Your task to perform on an android device: set default search engine in the chrome app Image 0: 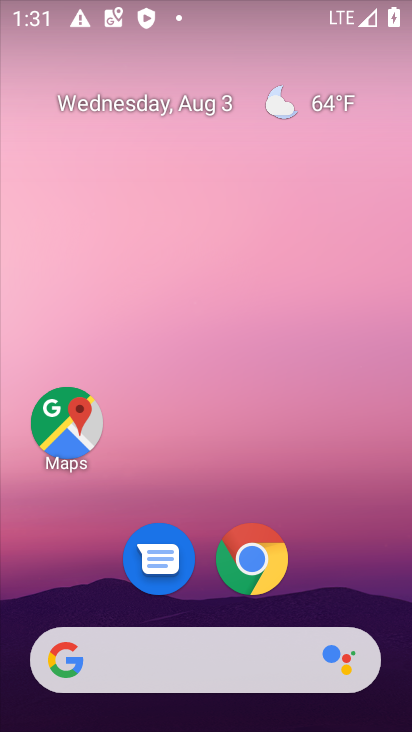
Step 0: click (250, 560)
Your task to perform on an android device: set default search engine in the chrome app Image 1: 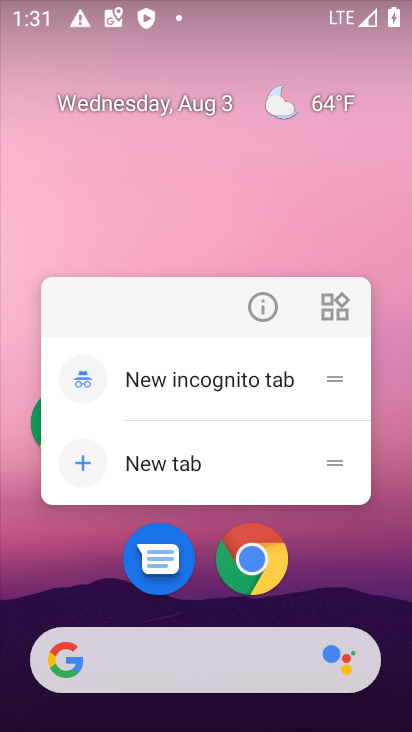
Step 1: click (250, 566)
Your task to perform on an android device: set default search engine in the chrome app Image 2: 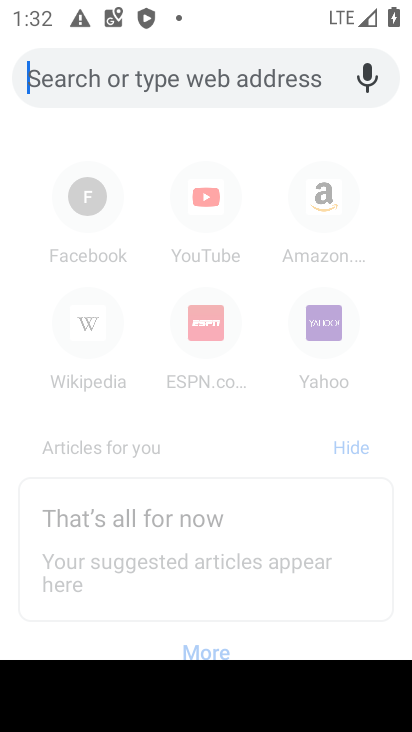
Step 2: click (239, 409)
Your task to perform on an android device: set default search engine in the chrome app Image 3: 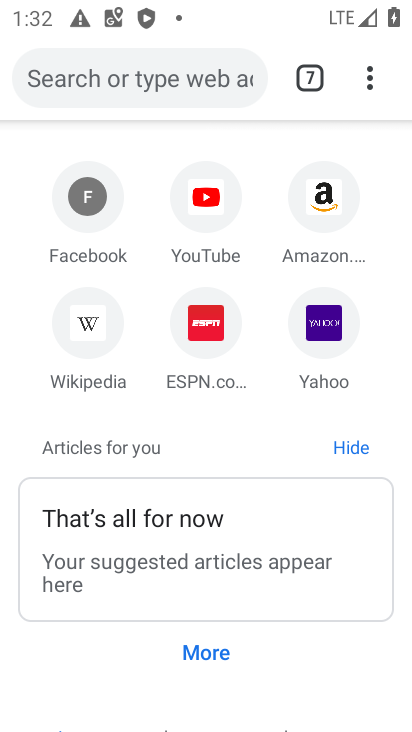
Step 3: click (370, 90)
Your task to perform on an android device: set default search engine in the chrome app Image 4: 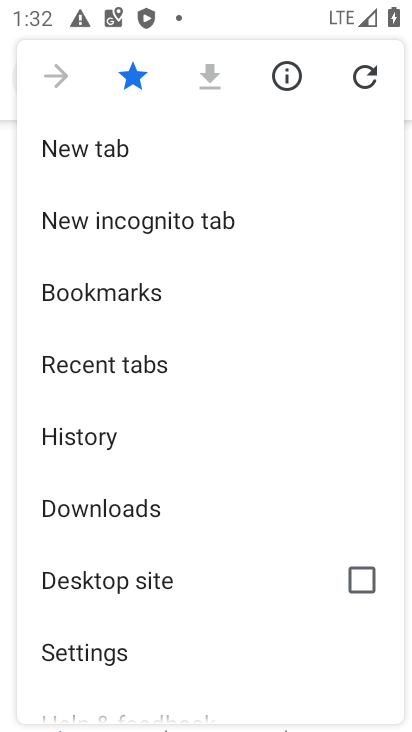
Step 4: click (96, 649)
Your task to perform on an android device: set default search engine in the chrome app Image 5: 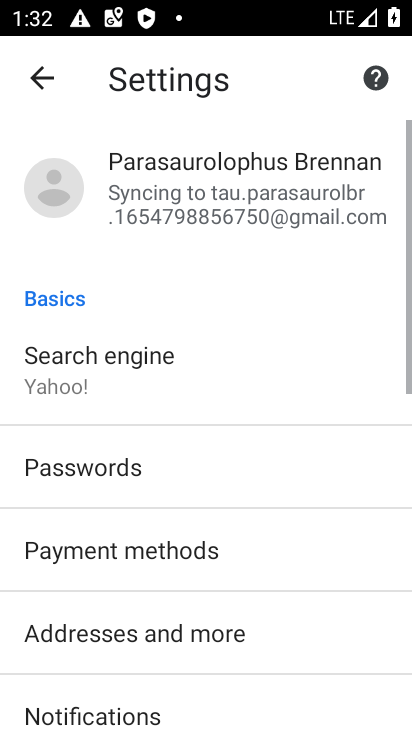
Step 5: drag from (125, 630) to (156, 245)
Your task to perform on an android device: set default search engine in the chrome app Image 6: 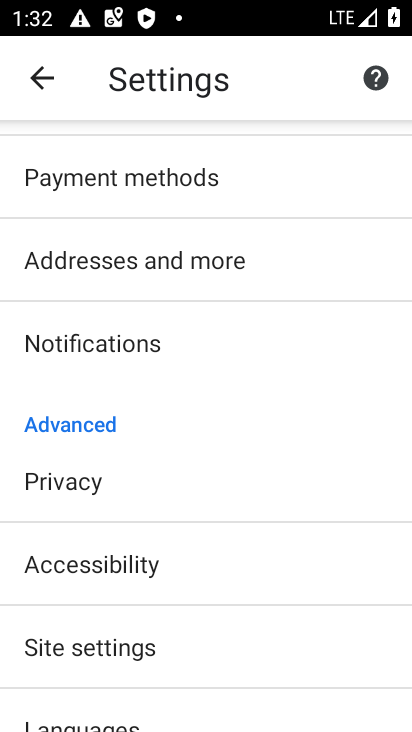
Step 6: drag from (151, 681) to (178, 317)
Your task to perform on an android device: set default search engine in the chrome app Image 7: 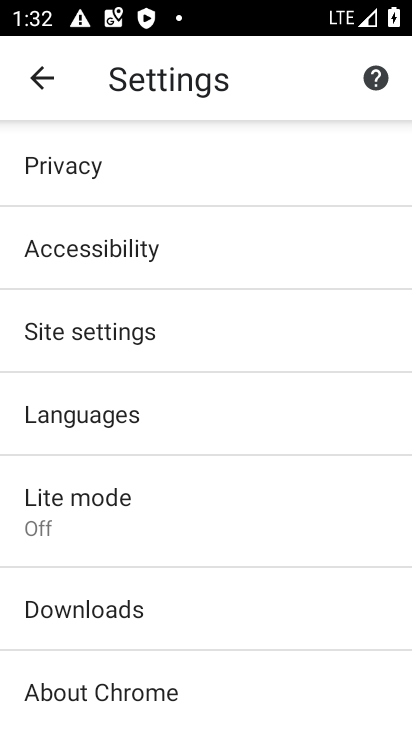
Step 7: drag from (125, 640) to (145, 343)
Your task to perform on an android device: set default search engine in the chrome app Image 8: 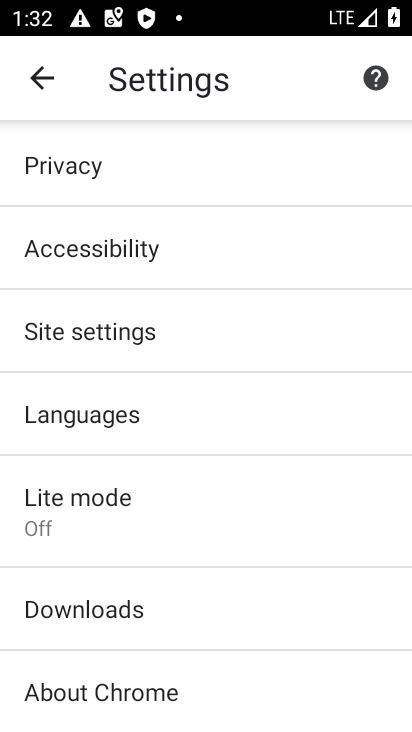
Step 8: drag from (171, 199) to (147, 541)
Your task to perform on an android device: set default search engine in the chrome app Image 9: 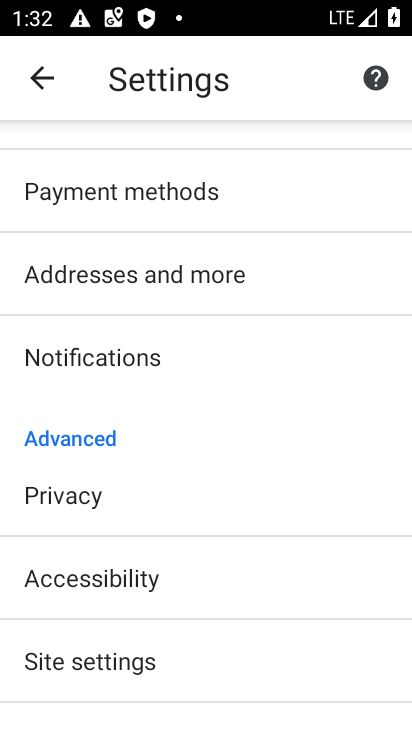
Step 9: drag from (136, 169) to (114, 527)
Your task to perform on an android device: set default search engine in the chrome app Image 10: 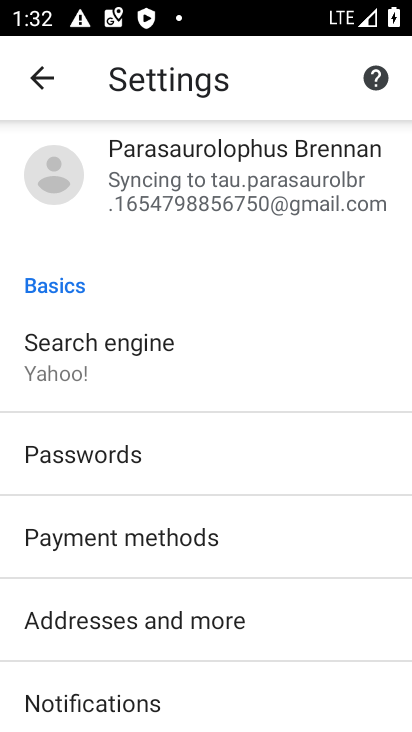
Step 10: click (87, 359)
Your task to perform on an android device: set default search engine in the chrome app Image 11: 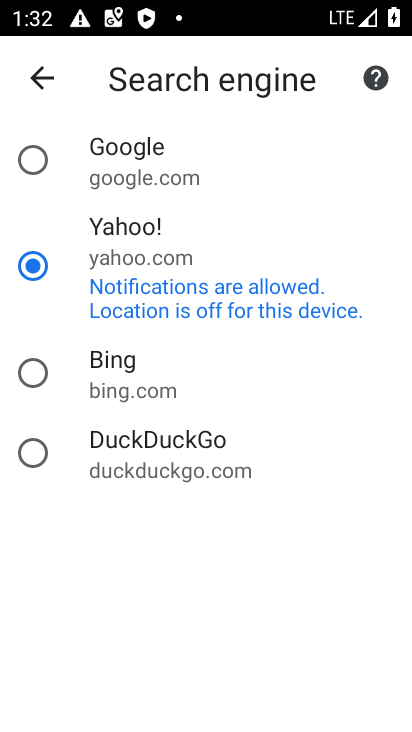
Step 11: click (28, 158)
Your task to perform on an android device: set default search engine in the chrome app Image 12: 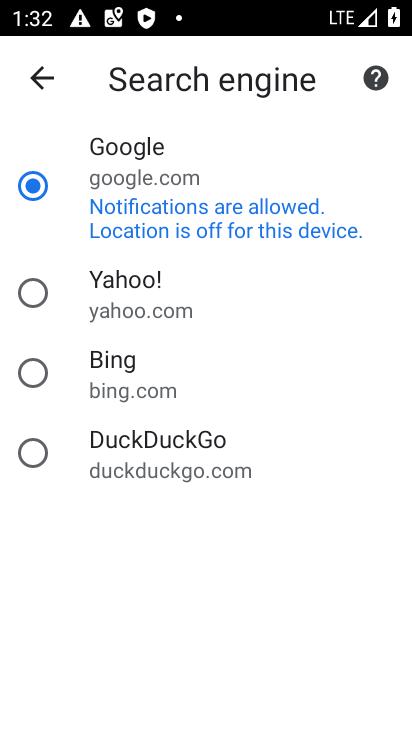
Step 12: task complete